Your task to perform on an android device: Open calendar and show me the third week of next month Image 0: 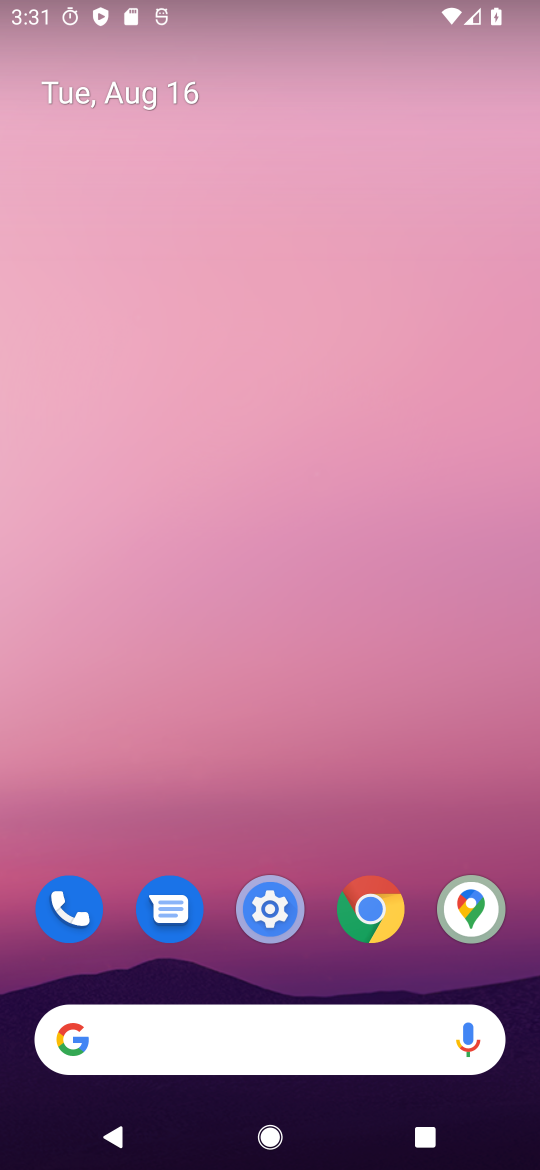
Step 0: click (363, 283)
Your task to perform on an android device: Open calendar and show me the third week of next month Image 1: 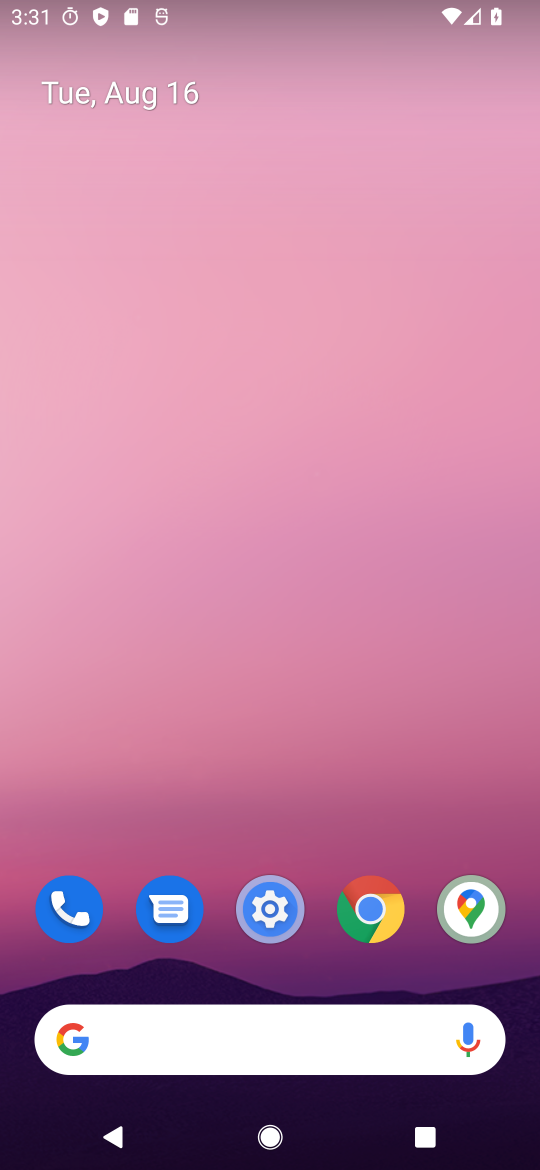
Step 1: drag from (267, 882) to (279, 504)
Your task to perform on an android device: Open calendar and show me the third week of next month Image 2: 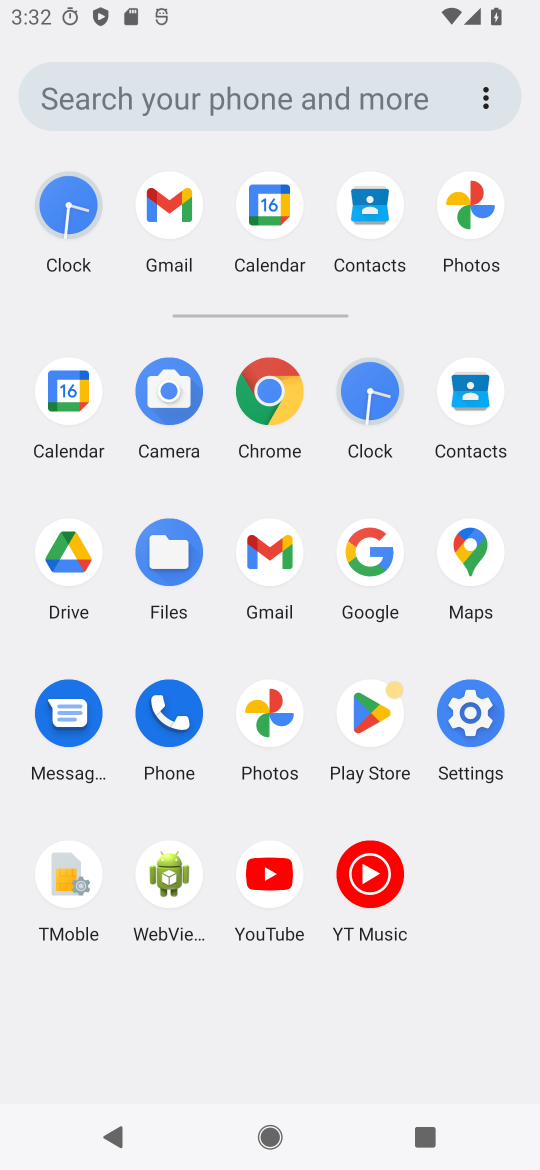
Step 2: click (63, 408)
Your task to perform on an android device: Open calendar and show me the third week of next month Image 3: 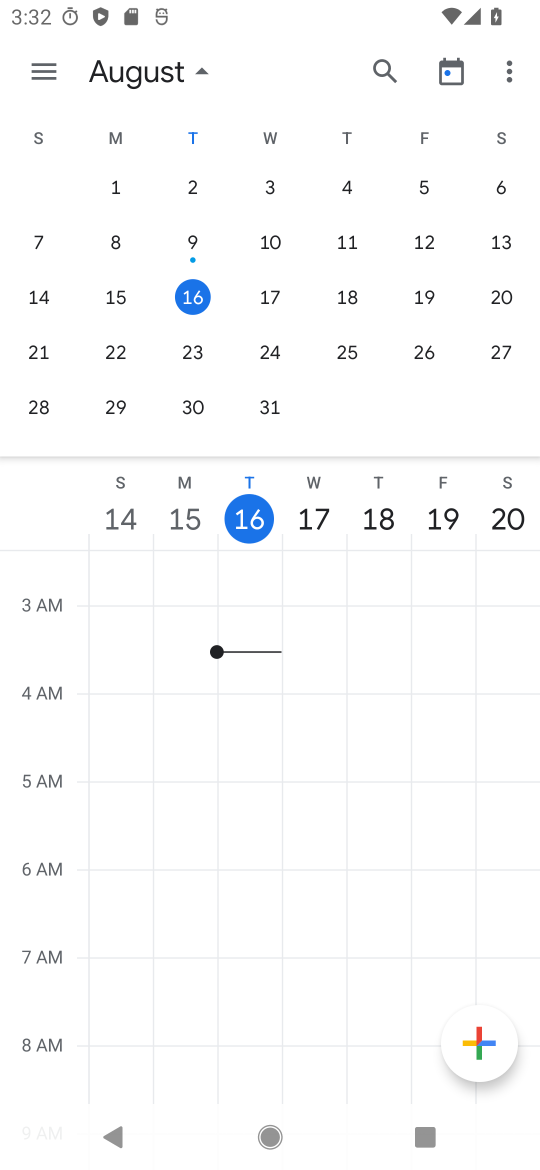
Step 3: drag from (476, 261) to (122, 230)
Your task to perform on an android device: Open calendar and show me the third week of next month Image 4: 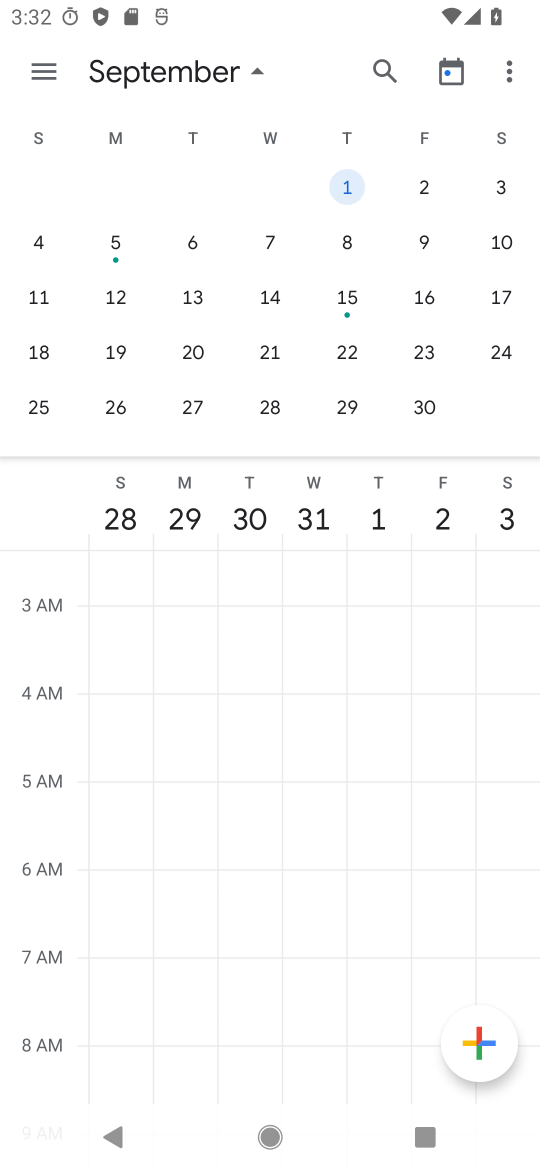
Step 4: click (37, 309)
Your task to perform on an android device: Open calendar and show me the third week of next month Image 5: 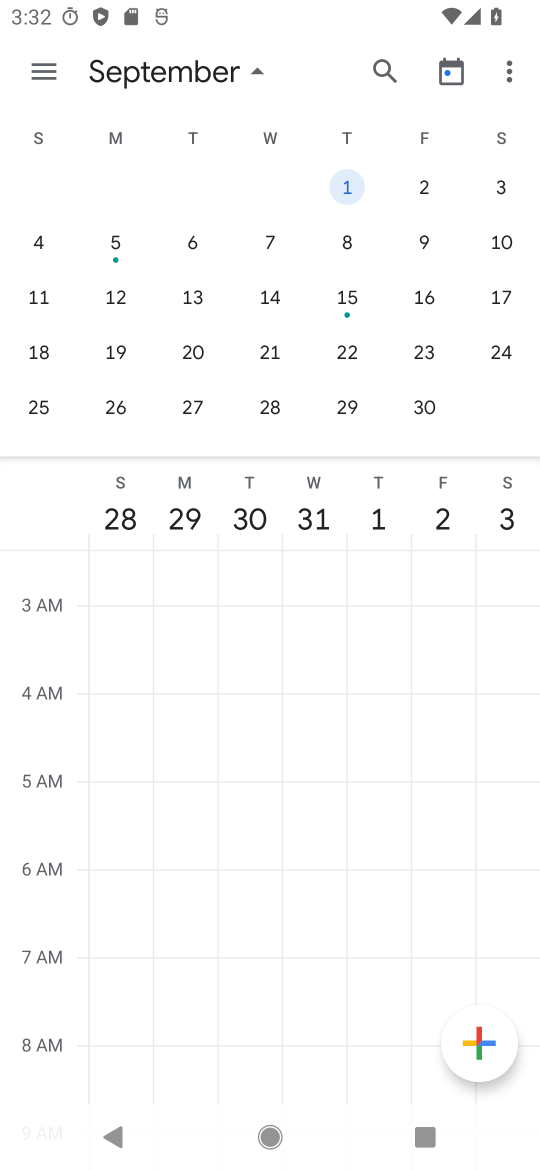
Step 5: click (37, 295)
Your task to perform on an android device: Open calendar and show me the third week of next month Image 6: 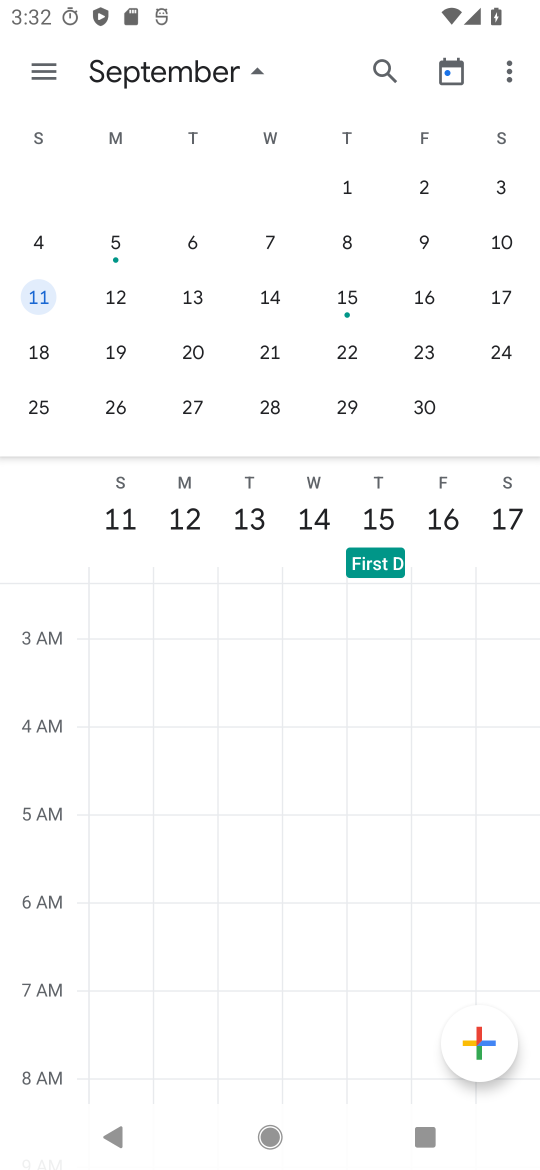
Step 6: task complete